Your task to perform on an android device: Go to settings Image 0: 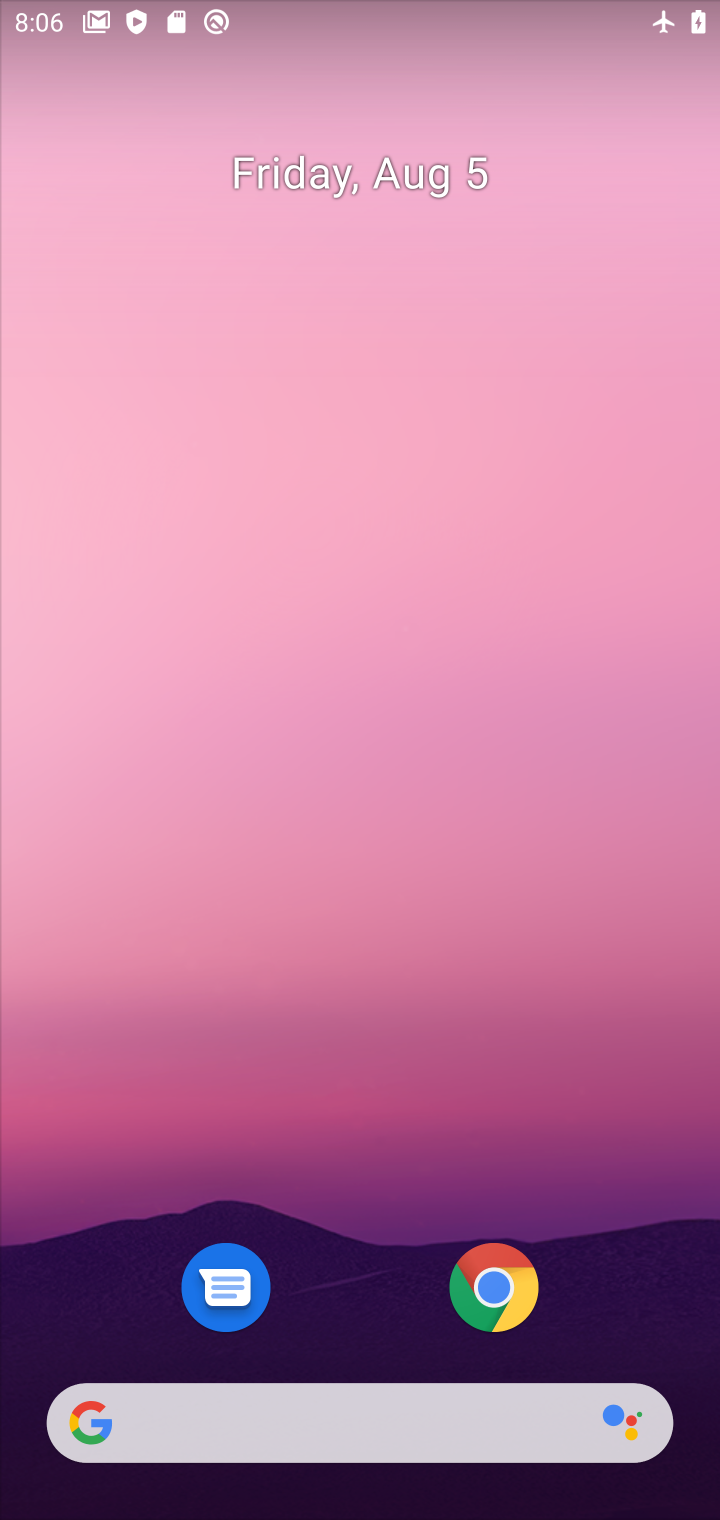
Step 0: drag from (368, 894) to (358, 423)
Your task to perform on an android device: Go to settings Image 1: 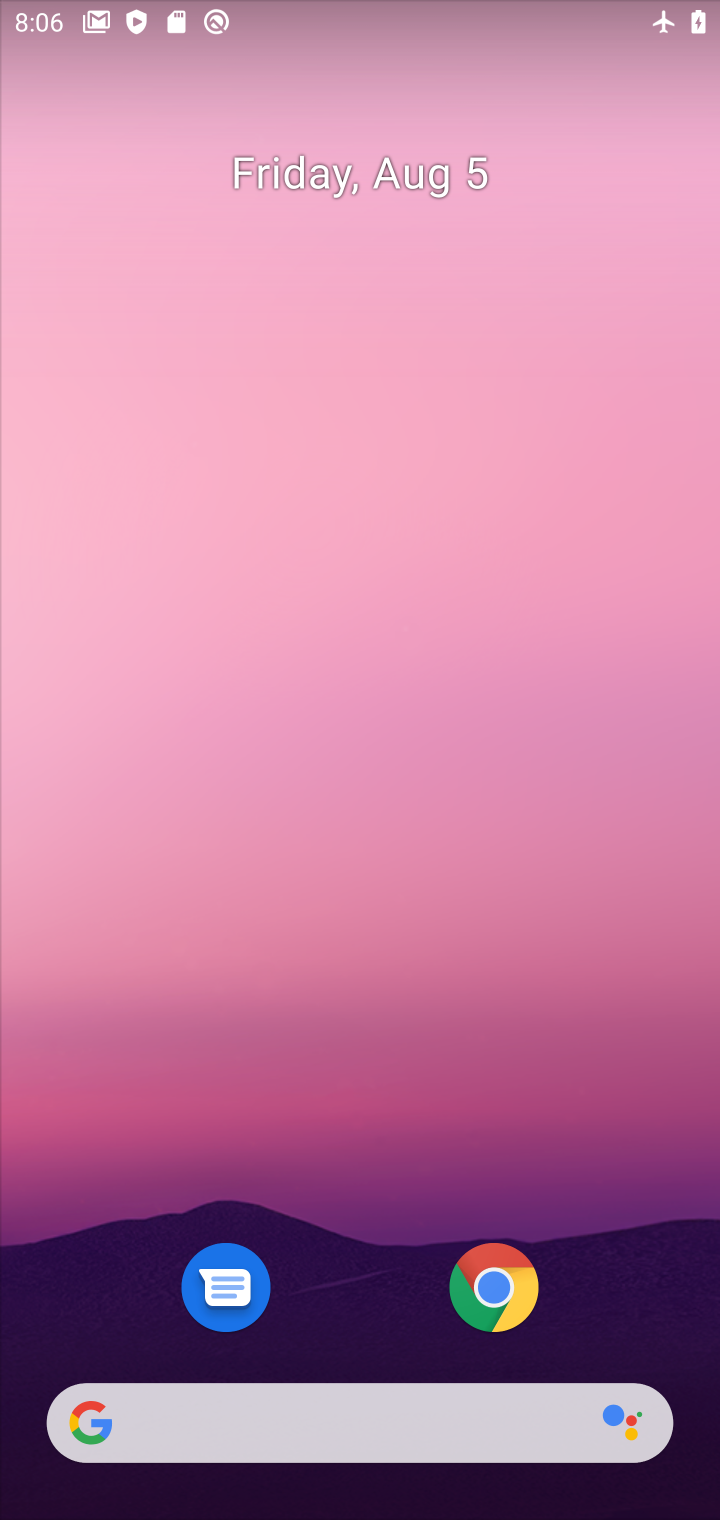
Step 1: drag from (320, 1312) to (360, 9)
Your task to perform on an android device: Go to settings Image 2: 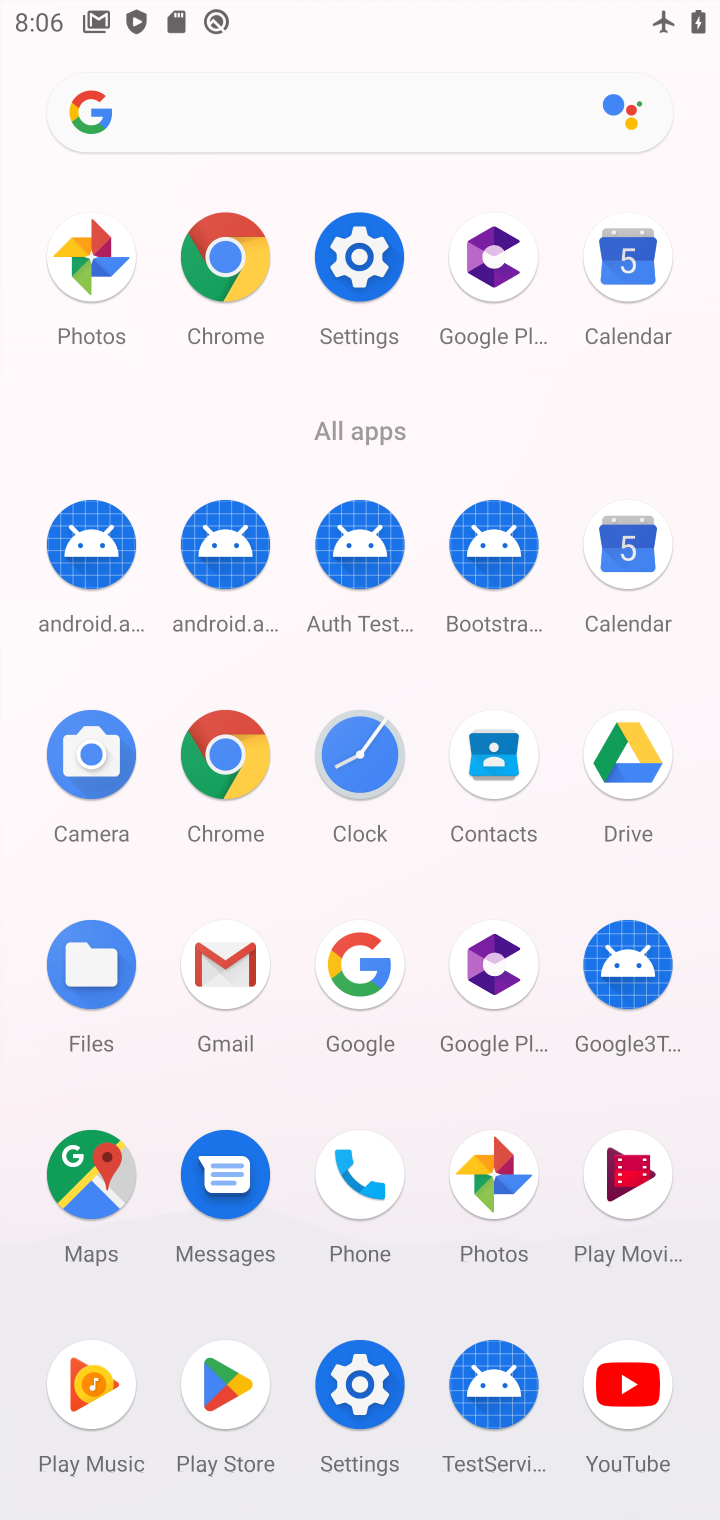
Step 2: click (338, 272)
Your task to perform on an android device: Go to settings Image 3: 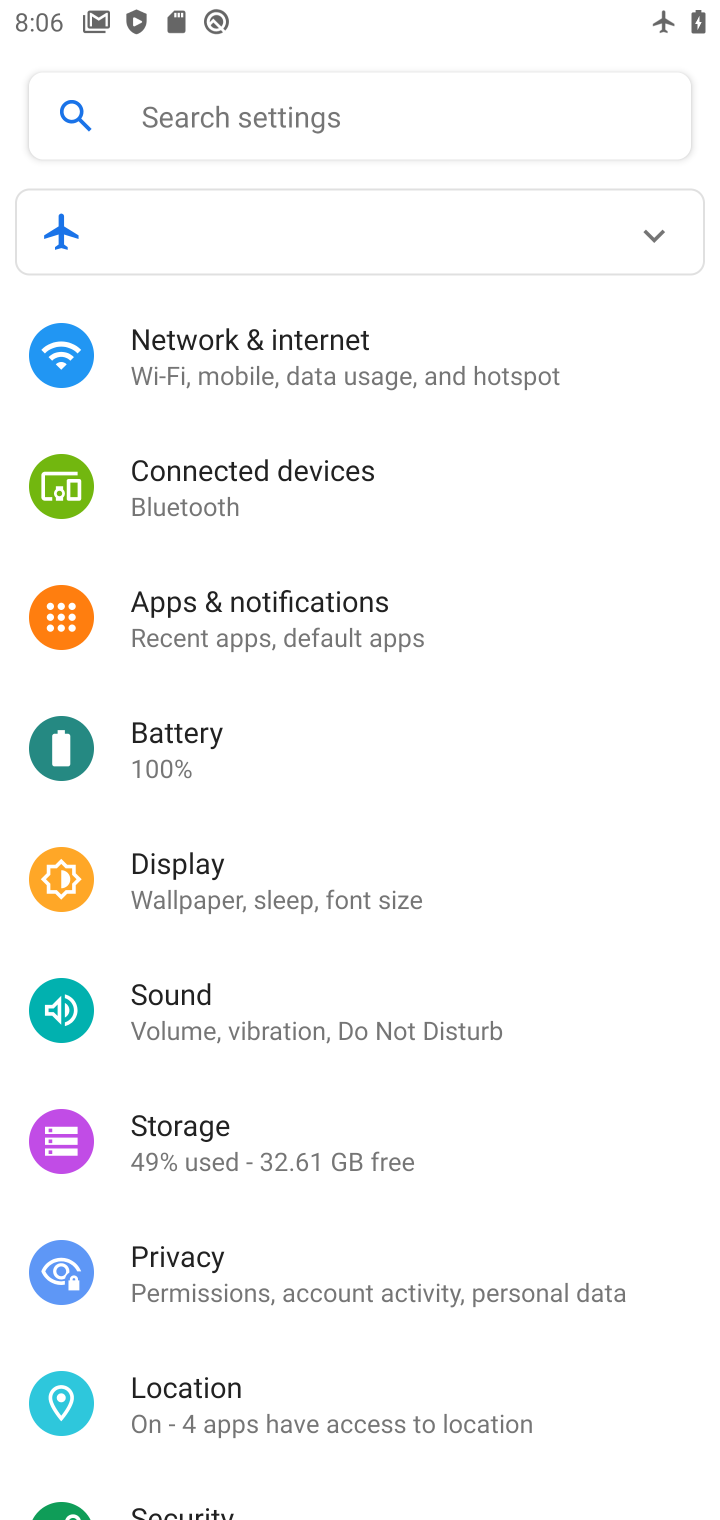
Step 3: task complete